Your task to perform on an android device: Go to privacy settings Image 0: 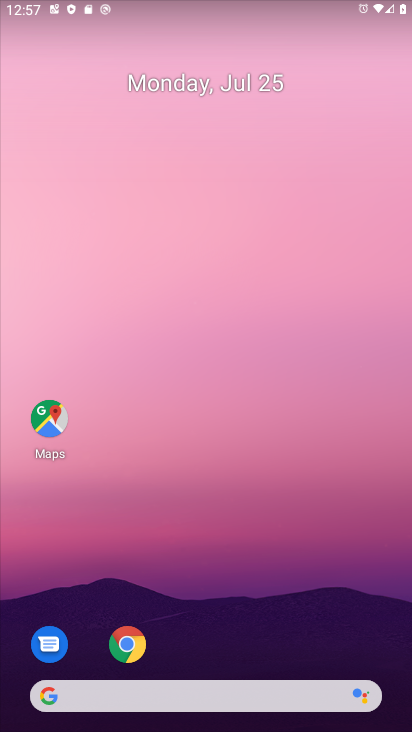
Step 0: drag from (393, 652) to (170, 71)
Your task to perform on an android device: Go to privacy settings Image 1: 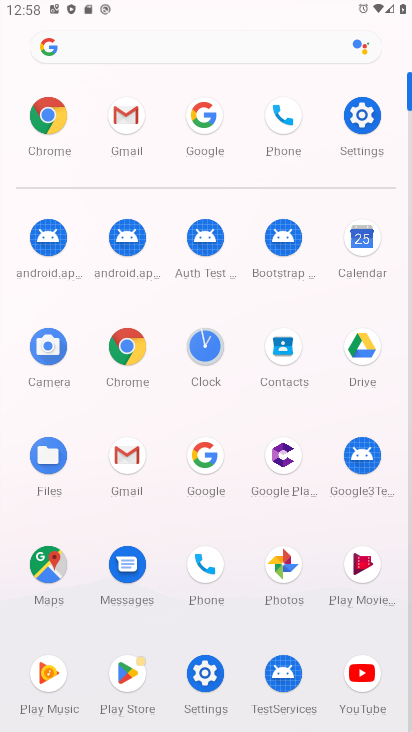
Step 1: click (216, 662)
Your task to perform on an android device: Go to privacy settings Image 2: 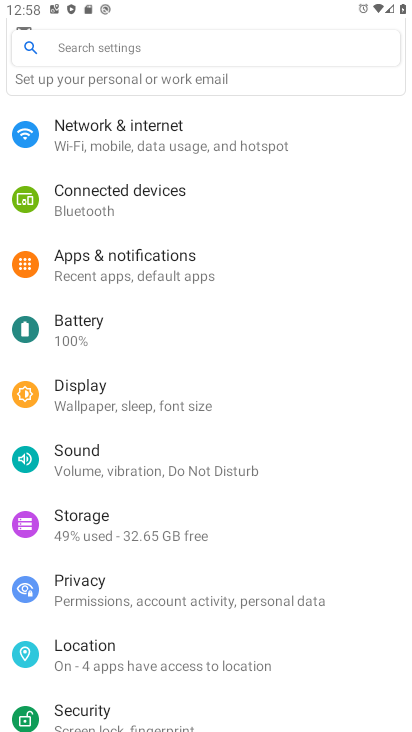
Step 2: click (37, 588)
Your task to perform on an android device: Go to privacy settings Image 3: 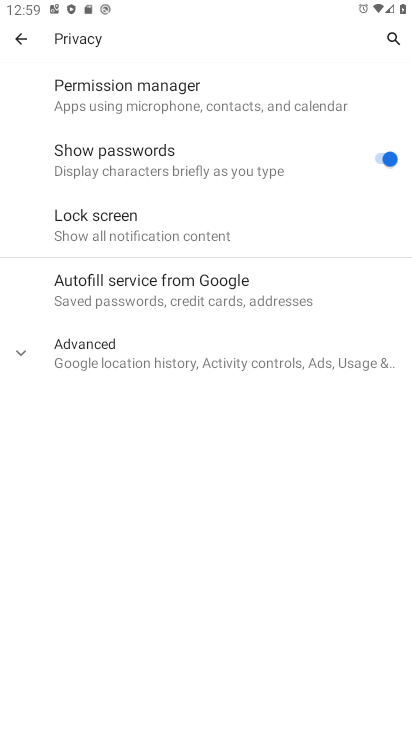
Step 3: task complete